Your task to perform on an android device: Open Maps and search for coffee Image 0: 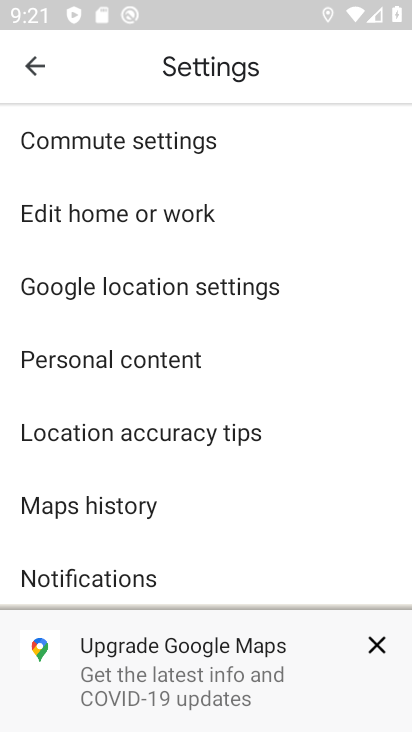
Step 0: press home button
Your task to perform on an android device: Open Maps and search for coffee Image 1: 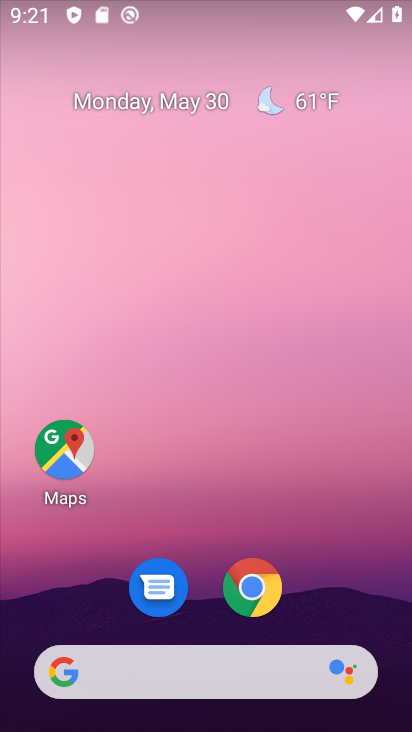
Step 1: click (70, 451)
Your task to perform on an android device: Open Maps and search for coffee Image 2: 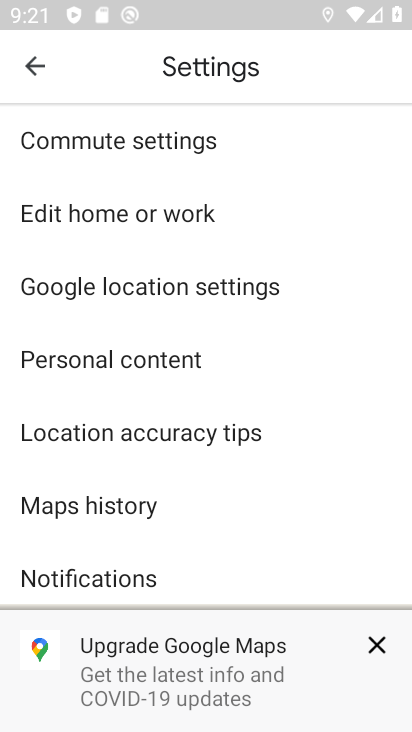
Step 2: click (35, 61)
Your task to perform on an android device: Open Maps and search for coffee Image 3: 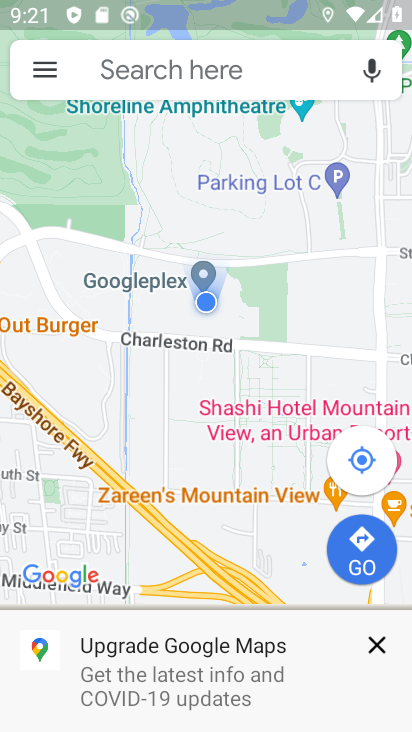
Step 3: click (198, 63)
Your task to perform on an android device: Open Maps and search for coffee Image 4: 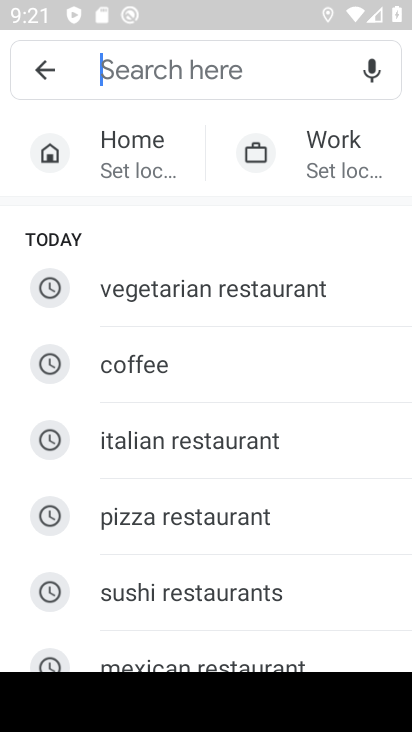
Step 4: click (140, 384)
Your task to perform on an android device: Open Maps and search for coffee Image 5: 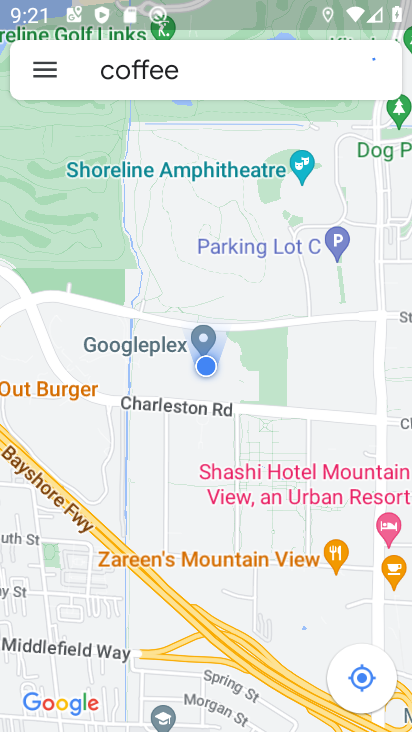
Step 5: task complete